Your task to perform on an android device: When is my next appointment? Image 0: 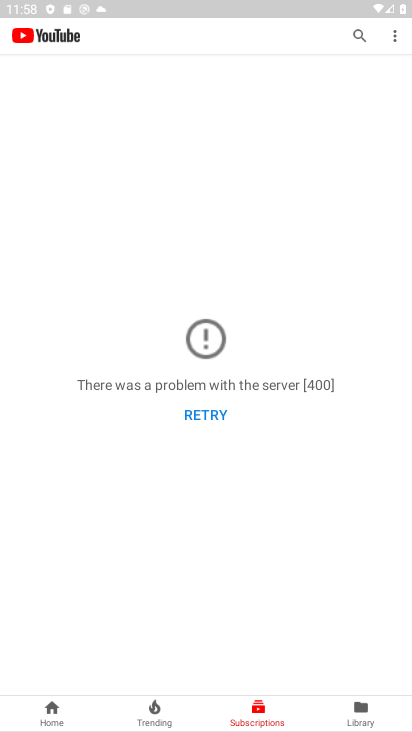
Step 0: press home button
Your task to perform on an android device: When is my next appointment? Image 1: 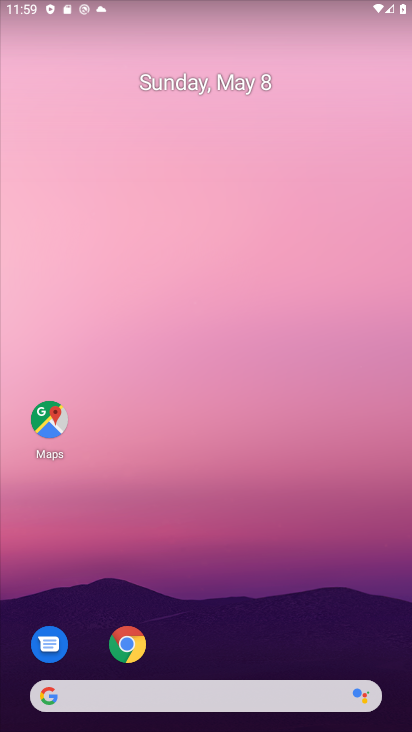
Step 1: drag from (227, 601) to (214, 54)
Your task to perform on an android device: When is my next appointment? Image 2: 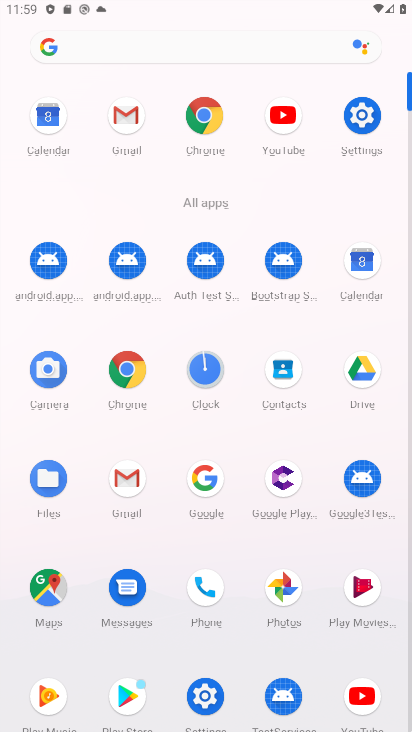
Step 2: drag from (162, 555) to (142, 371)
Your task to perform on an android device: When is my next appointment? Image 3: 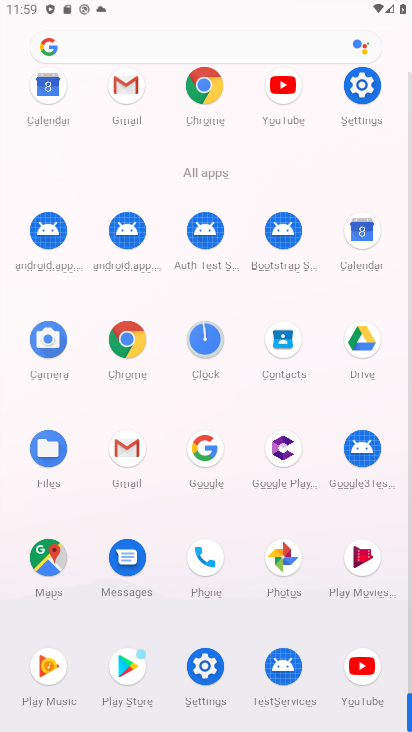
Step 3: click (359, 225)
Your task to perform on an android device: When is my next appointment? Image 4: 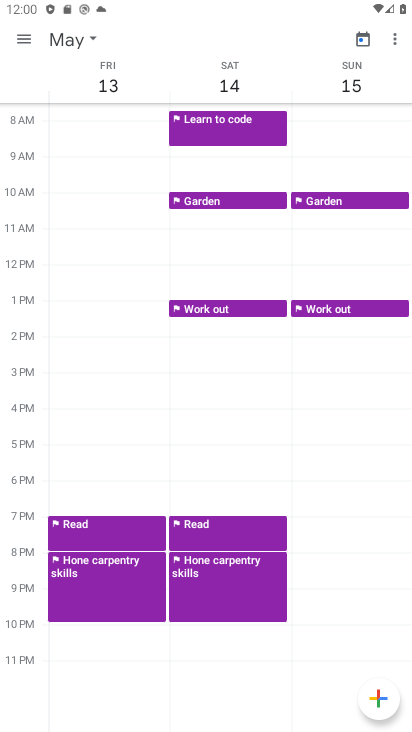
Step 4: click (22, 34)
Your task to perform on an android device: When is my next appointment? Image 5: 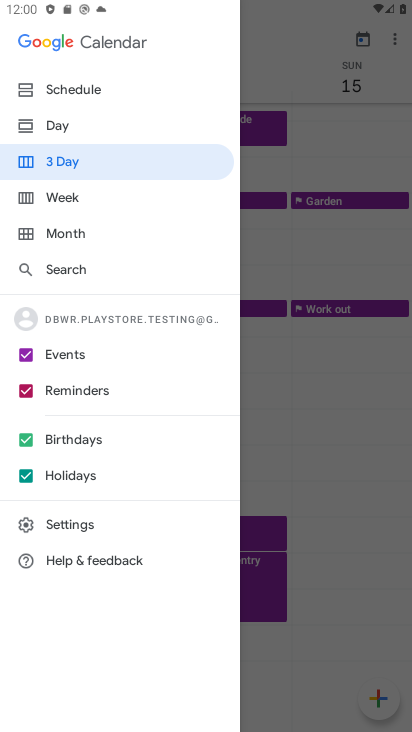
Step 5: click (75, 123)
Your task to perform on an android device: When is my next appointment? Image 6: 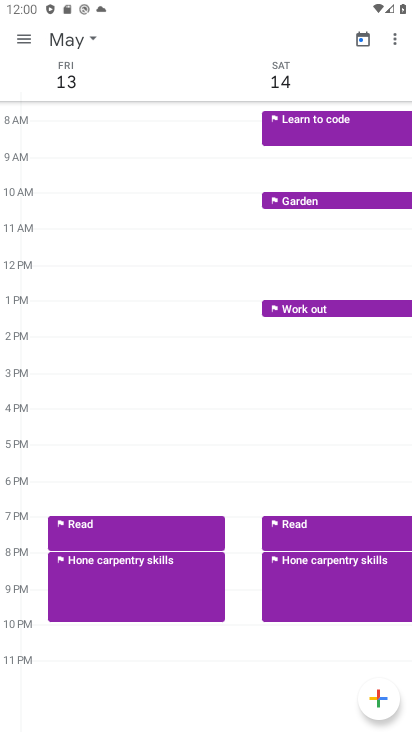
Step 6: drag from (71, 87) to (100, 190)
Your task to perform on an android device: When is my next appointment? Image 7: 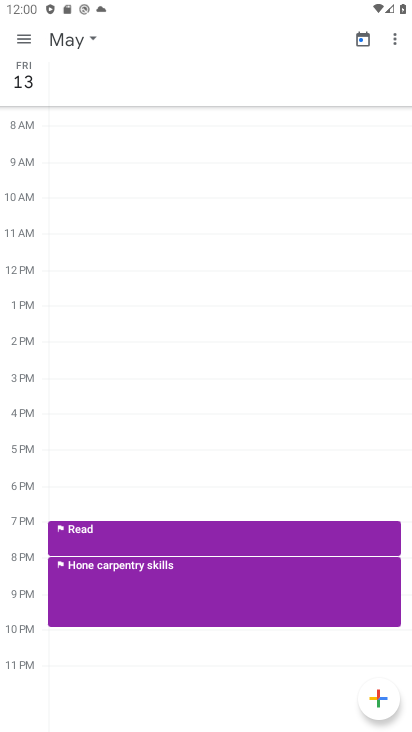
Step 7: click (19, 39)
Your task to perform on an android device: When is my next appointment? Image 8: 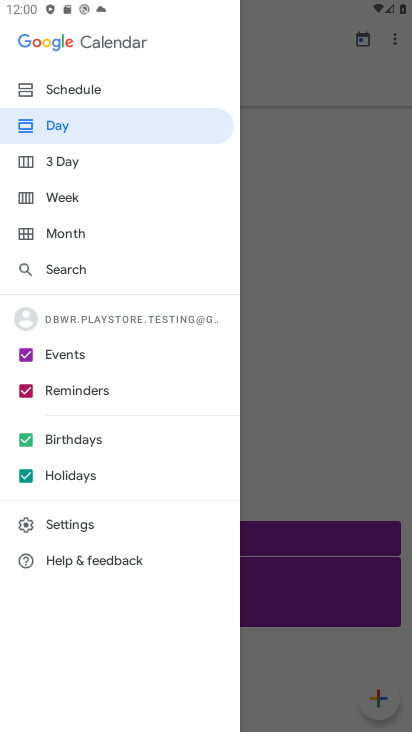
Step 8: click (82, 87)
Your task to perform on an android device: When is my next appointment? Image 9: 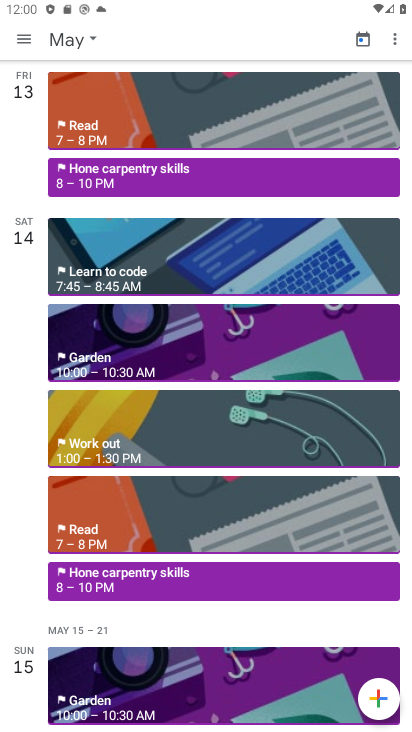
Step 9: drag from (151, 165) to (167, 383)
Your task to perform on an android device: When is my next appointment? Image 10: 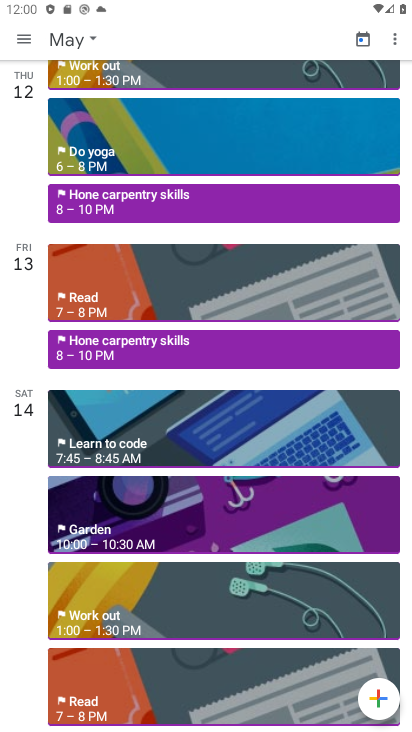
Step 10: click (83, 41)
Your task to perform on an android device: When is my next appointment? Image 11: 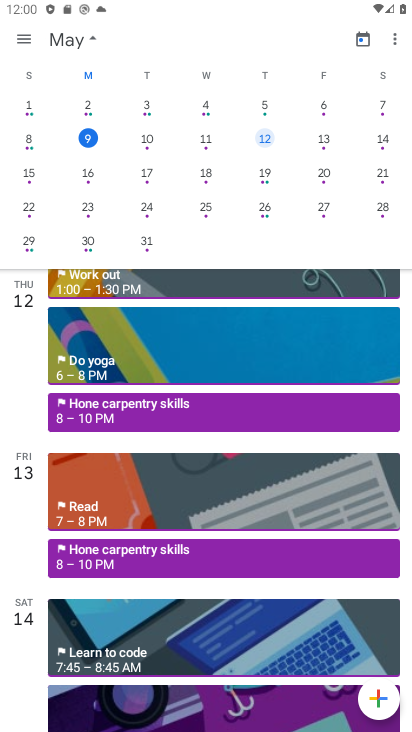
Step 11: click (86, 138)
Your task to perform on an android device: When is my next appointment? Image 12: 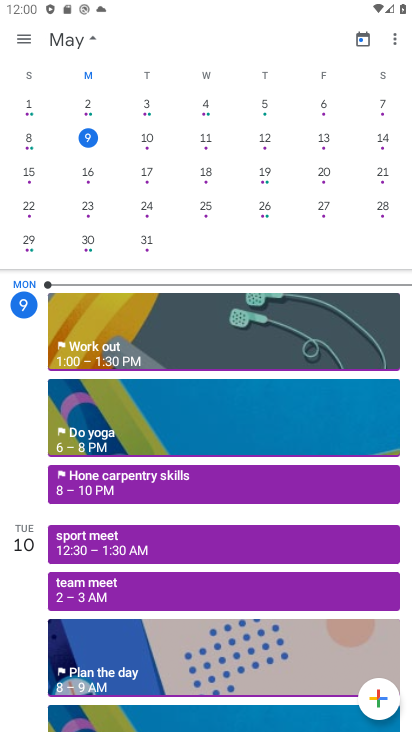
Step 12: task complete